Your task to perform on an android device: toggle sleep mode Image 0: 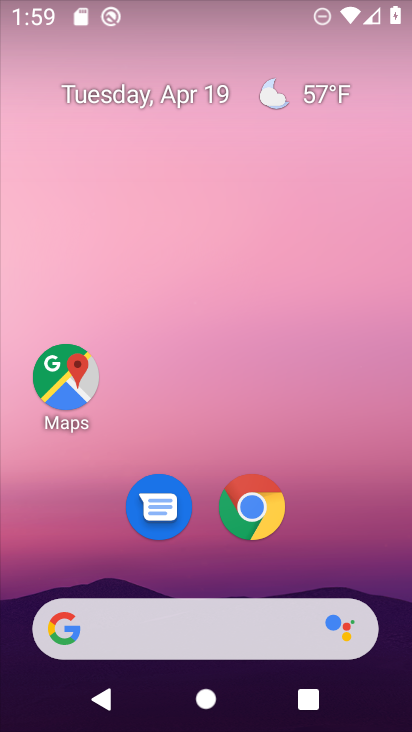
Step 0: drag from (354, 572) to (338, 169)
Your task to perform on an android device: toggle sleep mode Image 1: 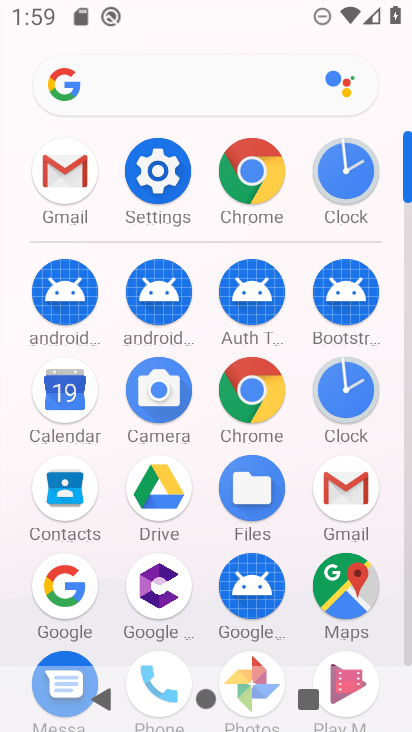
Step 1: click (162, 214)
Your task to perform on an android device: toggle sleep mode Image 2: 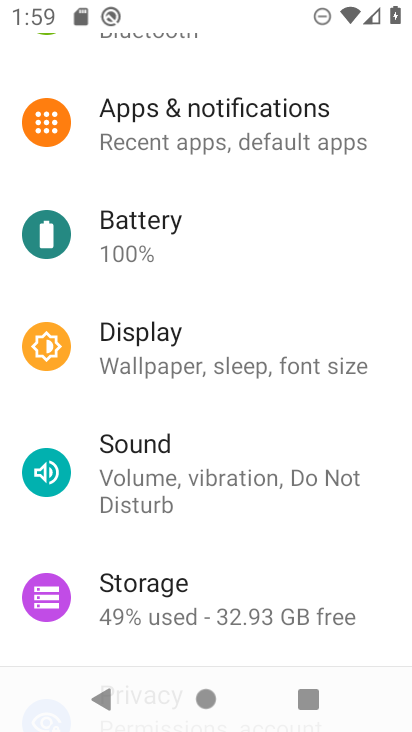
Step 2: click (289, 340)
Your task to perform on an android device: toggle sleep mode Image 3: 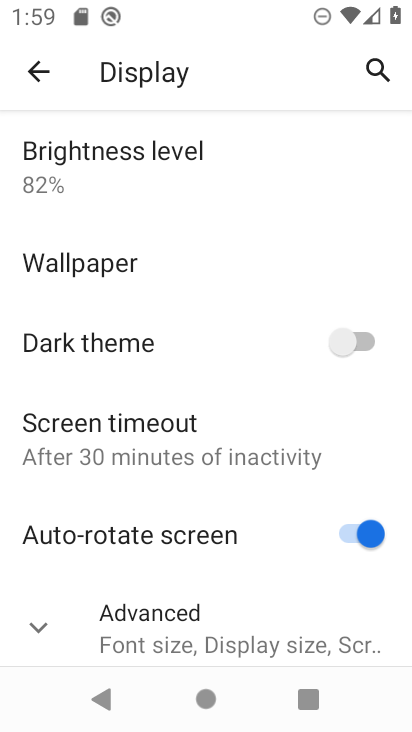
Step 3: click (247, 473)
Your task to perform on an android device: toggle sleep mode Image 4: 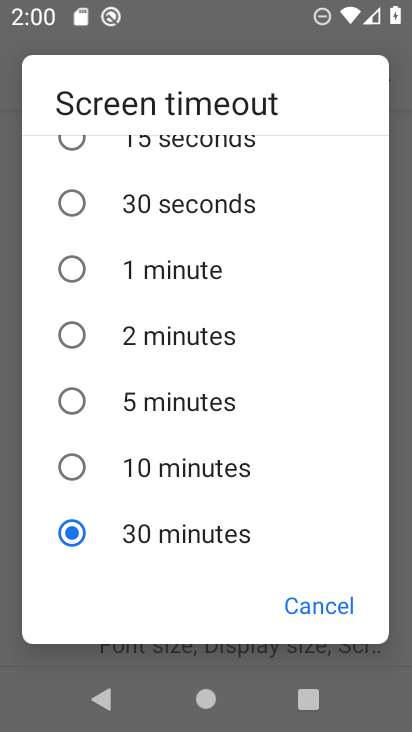
Step 4: click (180, 462)
Your task to perform on an android device: toggle sleep mode Image 5: 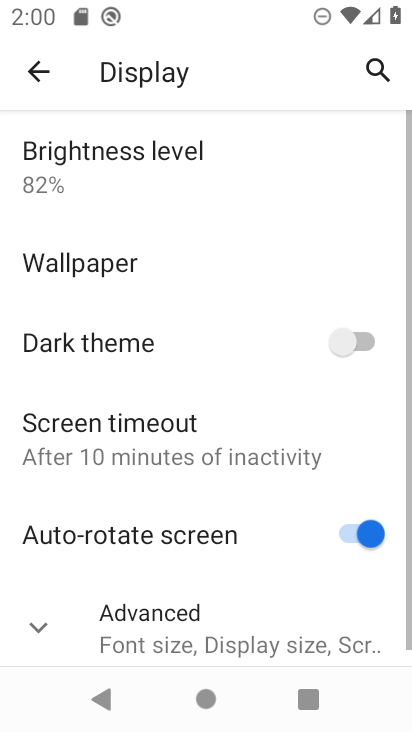
Step 5: task complete